Your task to perform on an android device: Add "energizer triple a" to the cart on target.com, then select checkout. Image 0: 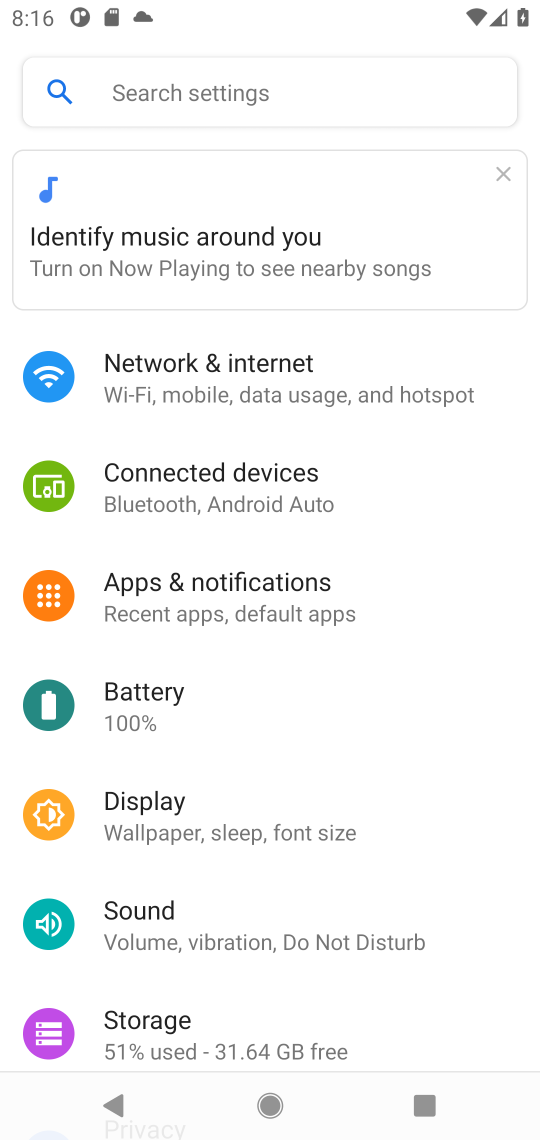
Step 0: press home button
Your task to perform on an android device: Add "energizer triple a" to the cart on target.com, then select checkout. Image 1: 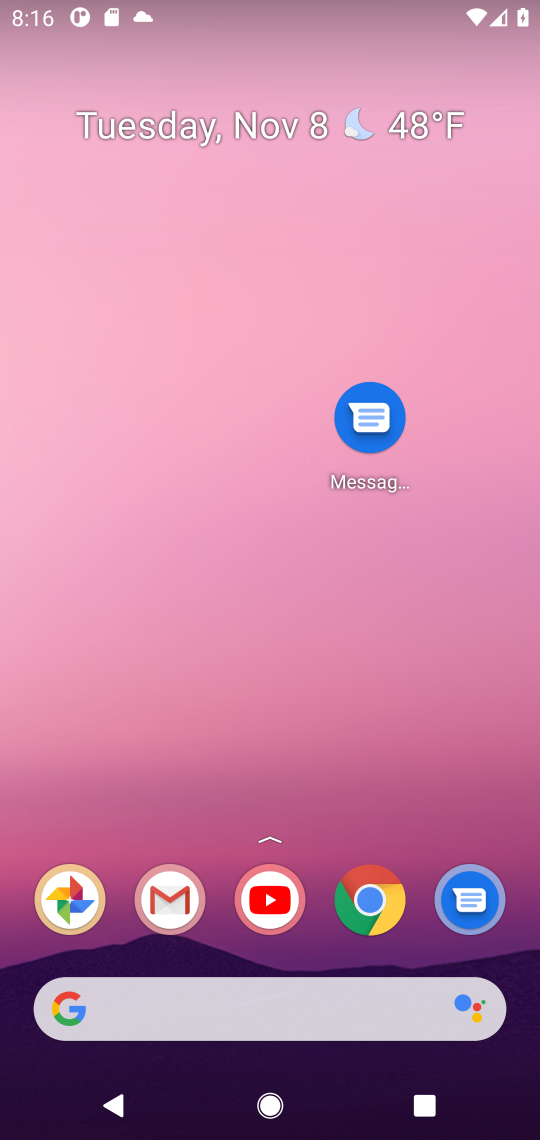
Step 1: drag from (256, 934) to (262, 388)
Your task to perform on an android device: Add "energizer triple a" to the cart on target.com, then select checkout. Image 2: 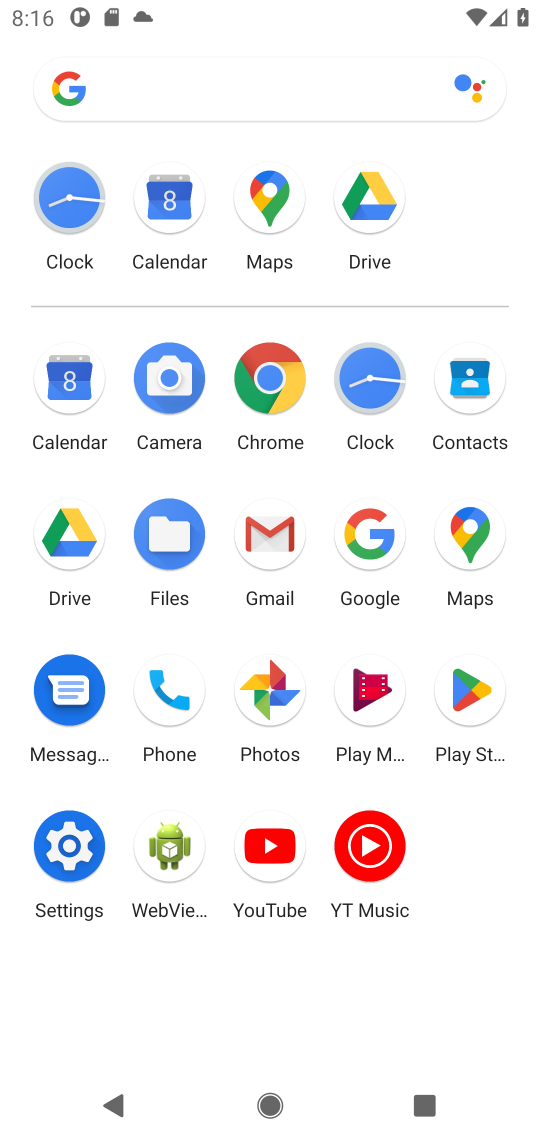
Step 2: click (363, 520)
Your task to perform on an android device: Add "energizer triple a" to the cart on target.com, then select checkout. Image 3: 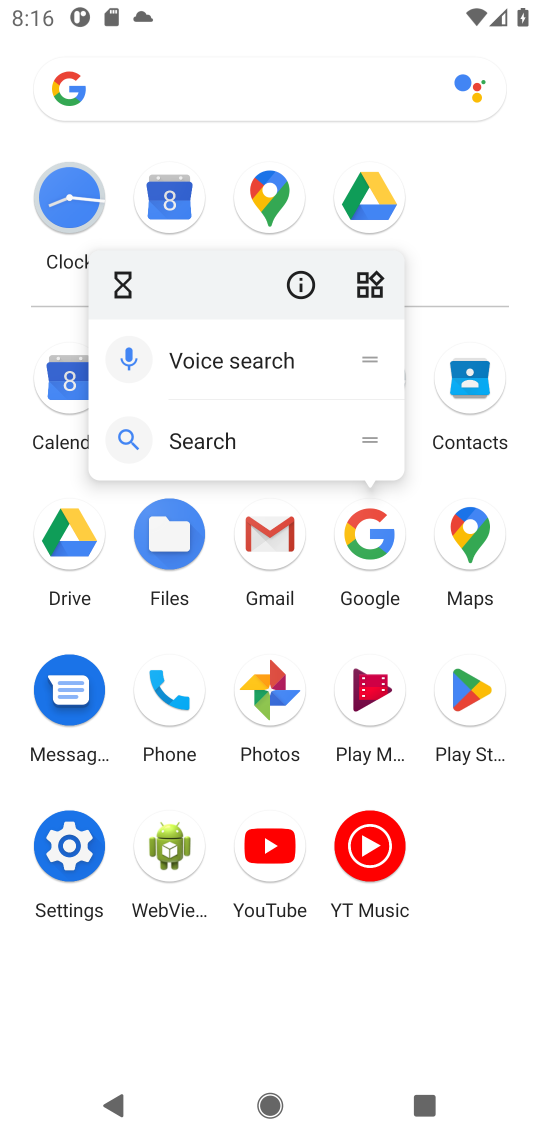
Step 3: click (363, 520)
Your task to perform on an android device: Add "energizer triple a" to the cart on target.com, then select checkout. Image 4: 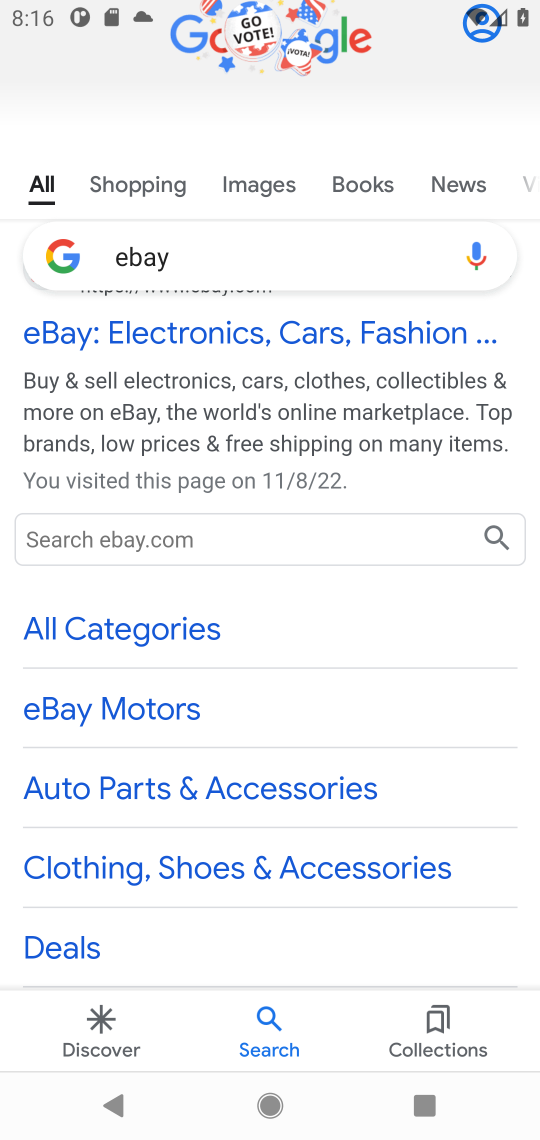
Step 4: click (305, 249)
Your task to perform on an android device: Add "energizer triple a" to the cart on target.com, then select checkout. Image 5: 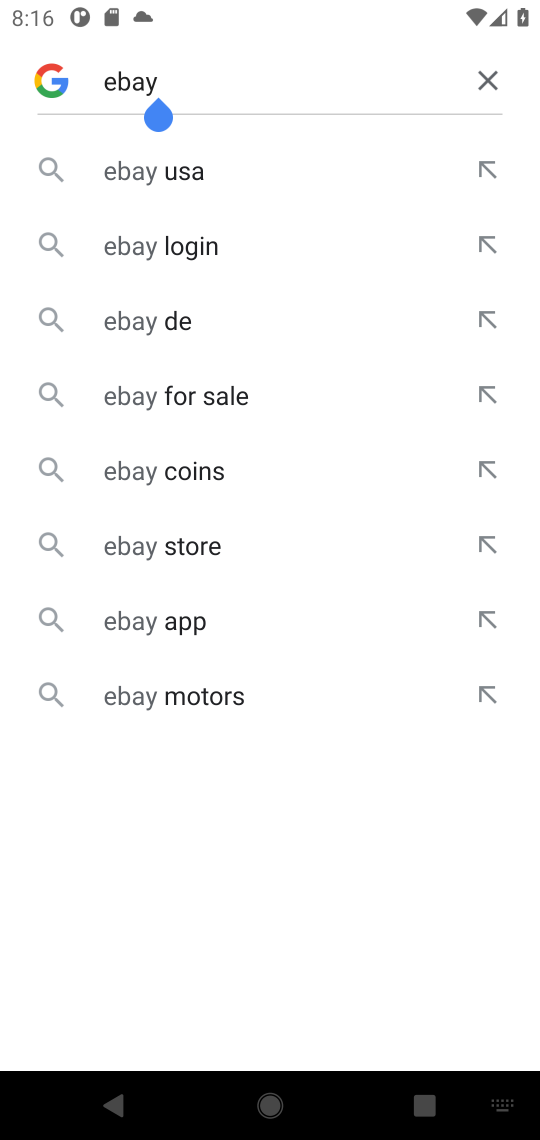
Step 5: click (485, 63)
Your task to perform on an android device: Add "energizer triple a" to the cart on target.com, then select checkout. Image 6: 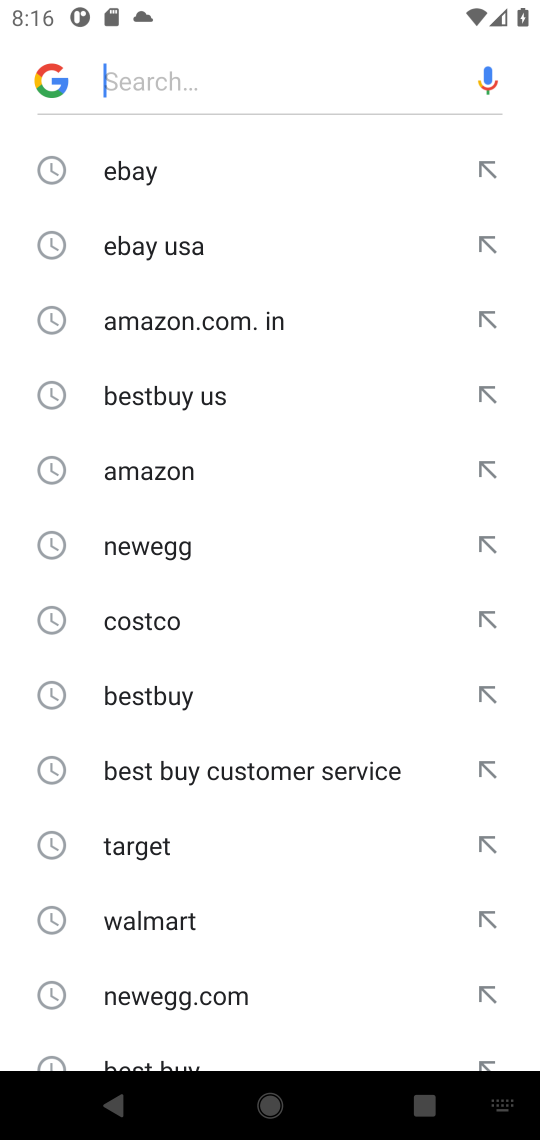
Step 6: click (249, 65)
Your task to perform on an android device: Add "energizer triple a" to the cart on target.com, then select checkout. Image 7: 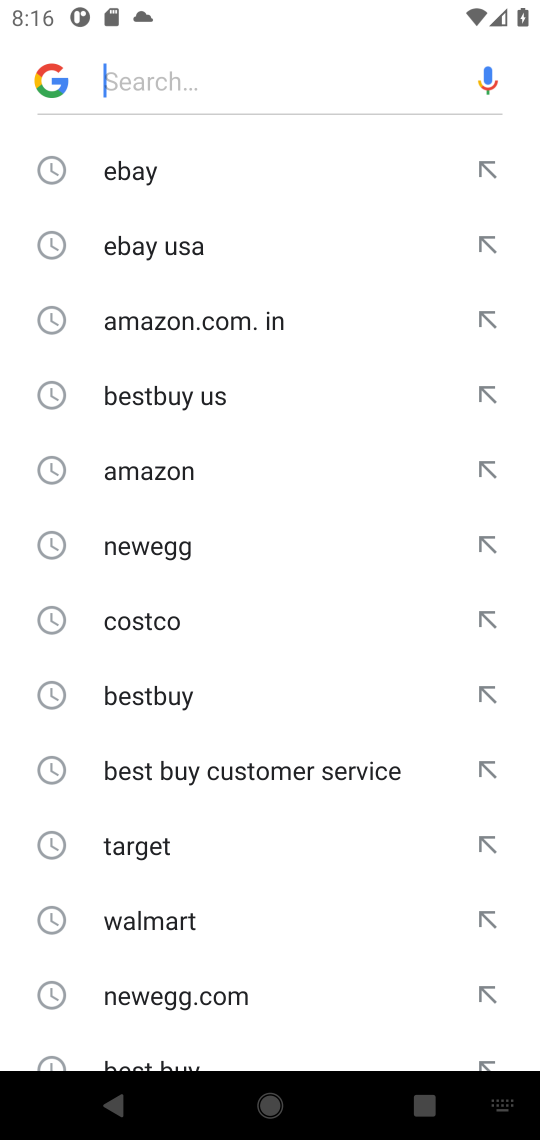
Step 7: type "target "
Your task to perform on an android device: Add "energizer triple a" to the cart on target.com, then select checkout. Image 8: 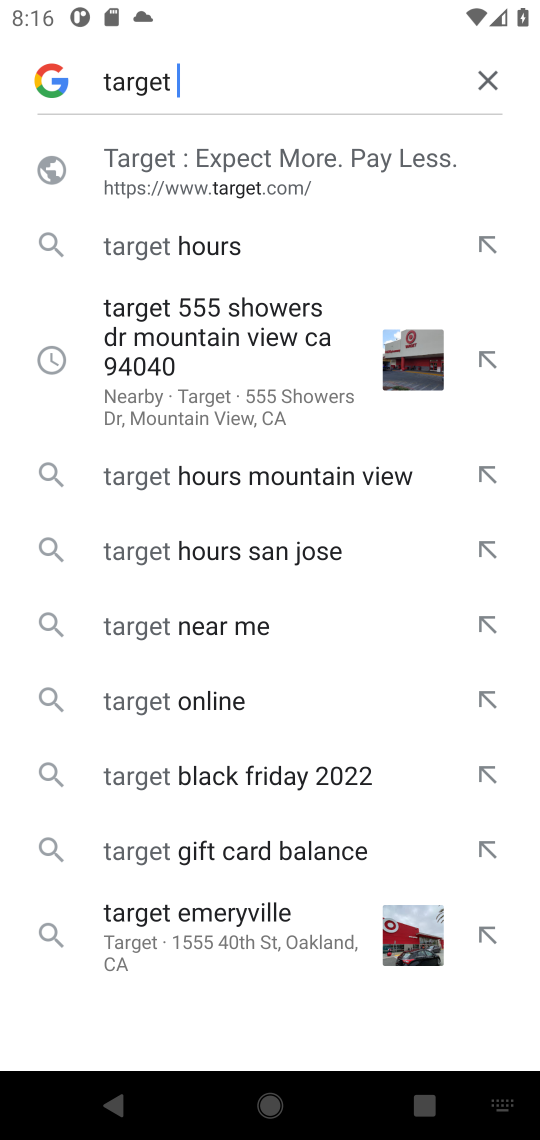
Step 8: click (170, 165)
Your task to perform on an android device: Add "energizer triple a" to the cart on target.com, then select checkout. Image 9: 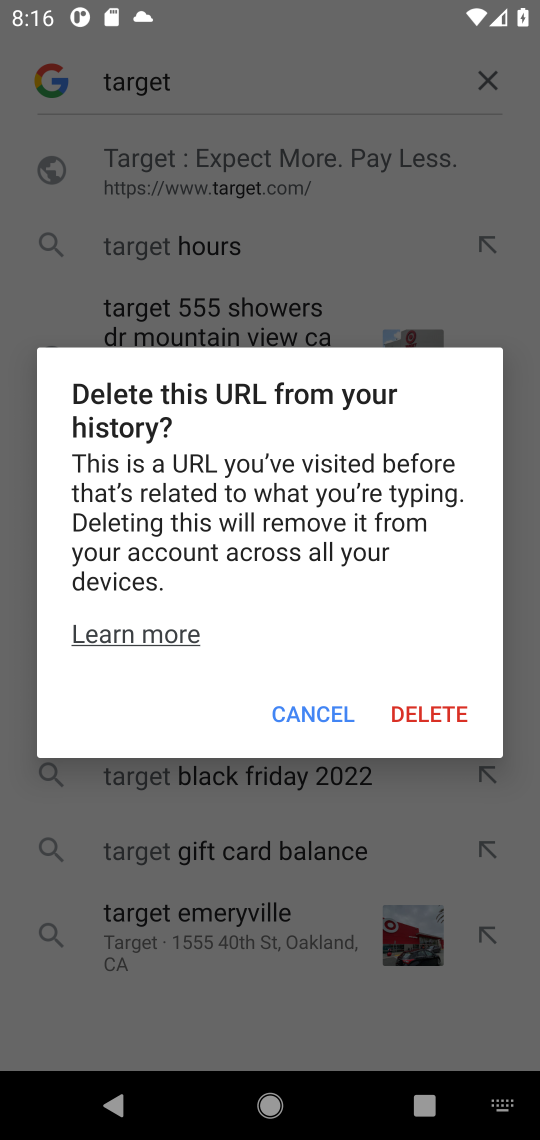
Step 9: click (291, 701)
Your task to perform on an android device: Add "energizer triple a" to the cart on target.com, then select checkout. Image 10: 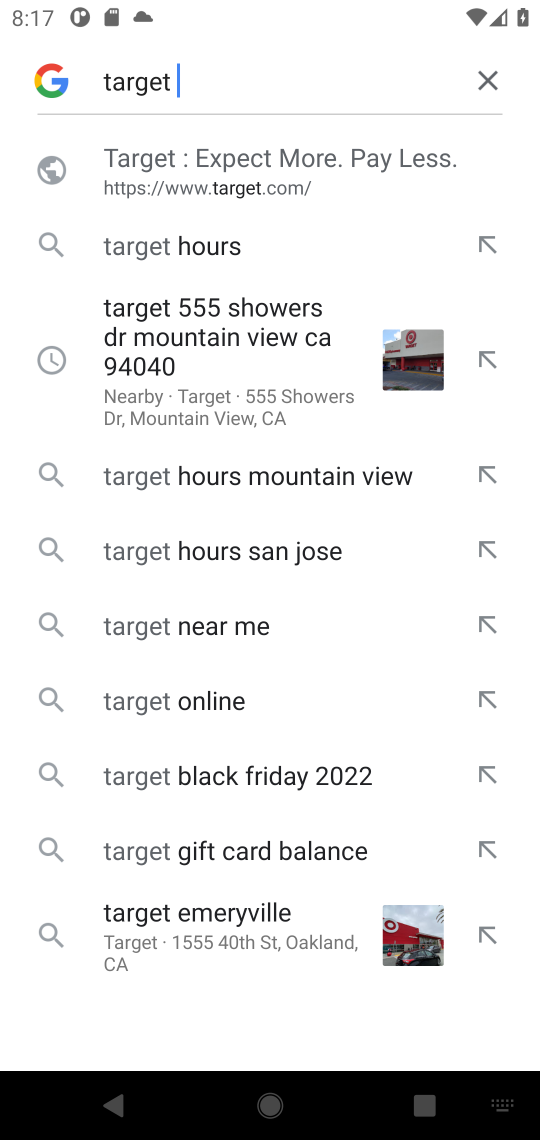
Step 10: click (435, 157)
Your task to perform on an android device: Add "energizer triple a" to the cart on target.com, then select checkout. Image 11: 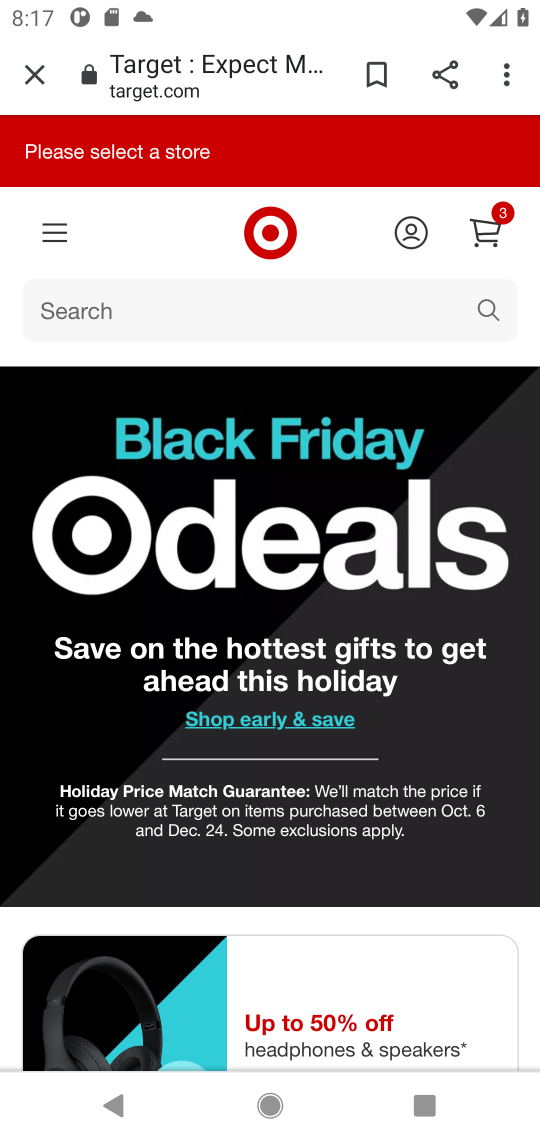
Step 11: click (247, 306)
Your task to perform on an android device: Add "energizer triple a" to the cart on target.com, then select checkout. Image 12: 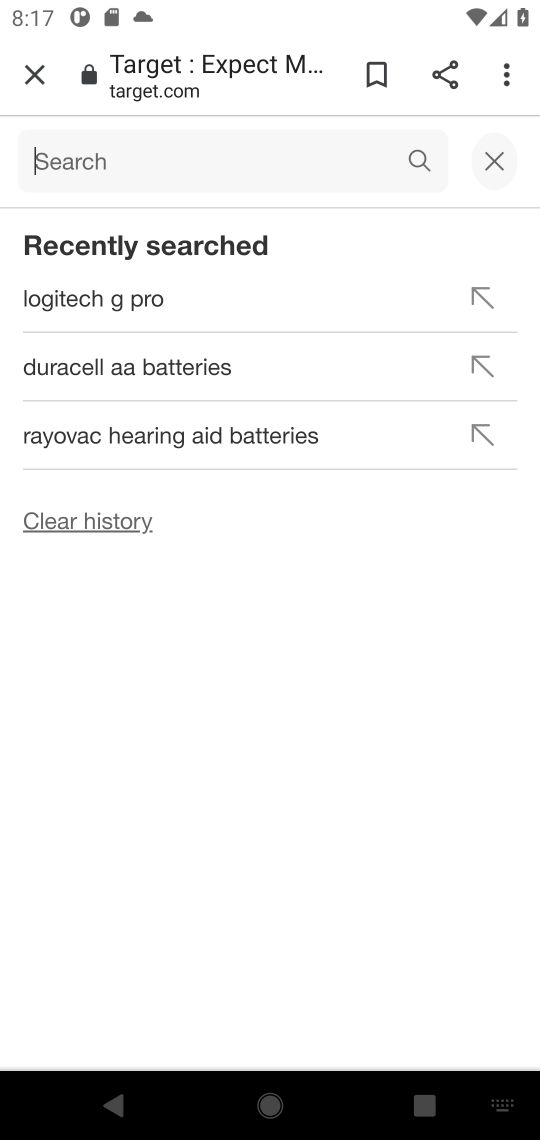
Step 12: click (196, 159)
Your task to perform on an android device: Add "energizer triple a" to the cart on target.com, then select checkout. Image 13: 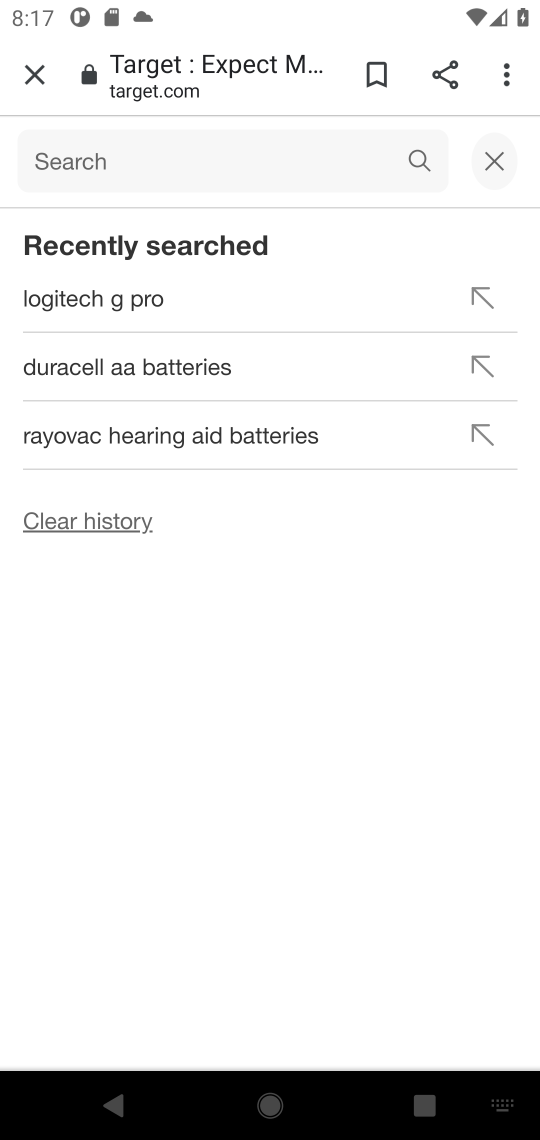
Step 13: type "energizer triple  "
Your task to perform on an android device: Add "energizer triple a" to the cart on target.com, then select checkout. Image 14: 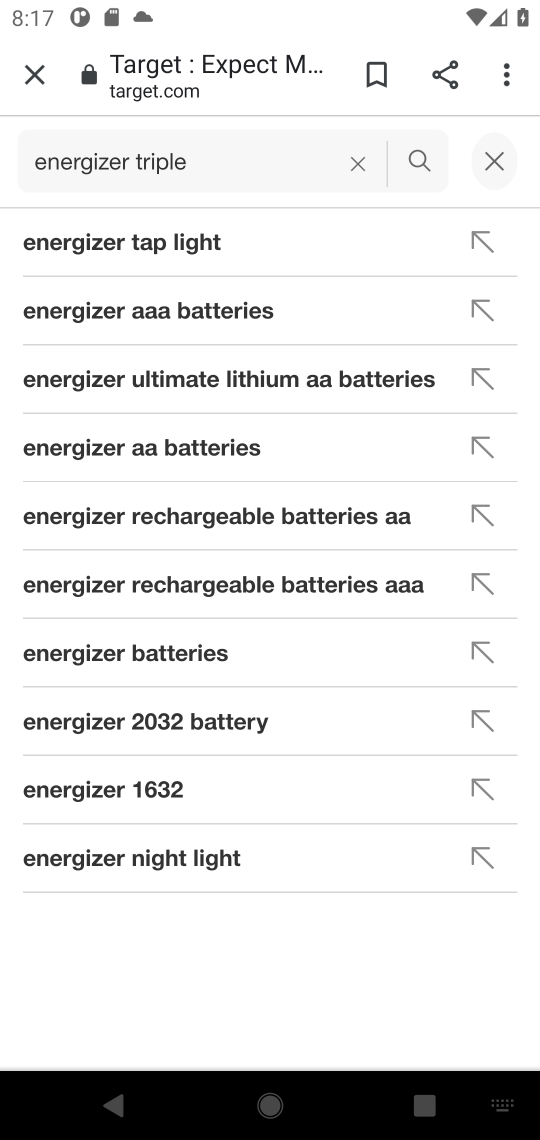
Step 14: click (183, 310)
Your task to perform on an android device: Add "energizer triple a" to the cart on target.com, then select checkout. Image 15: 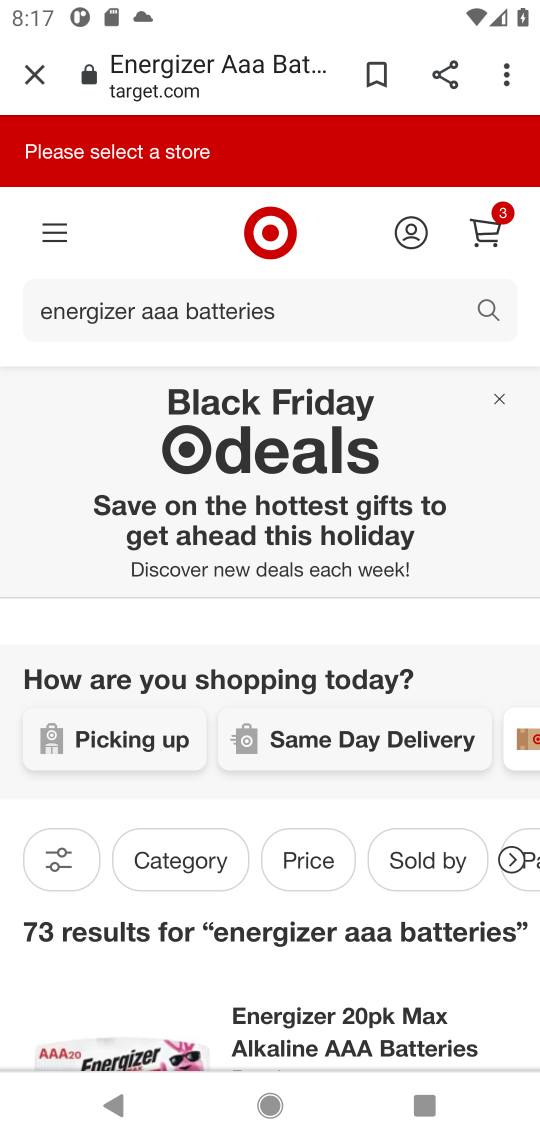
Step 15: drag from (314, 894) to (299, 248)
Your task to perform on an android device: Add "energizer triple a" to the cart on target.com, then select checkout. Image 16: 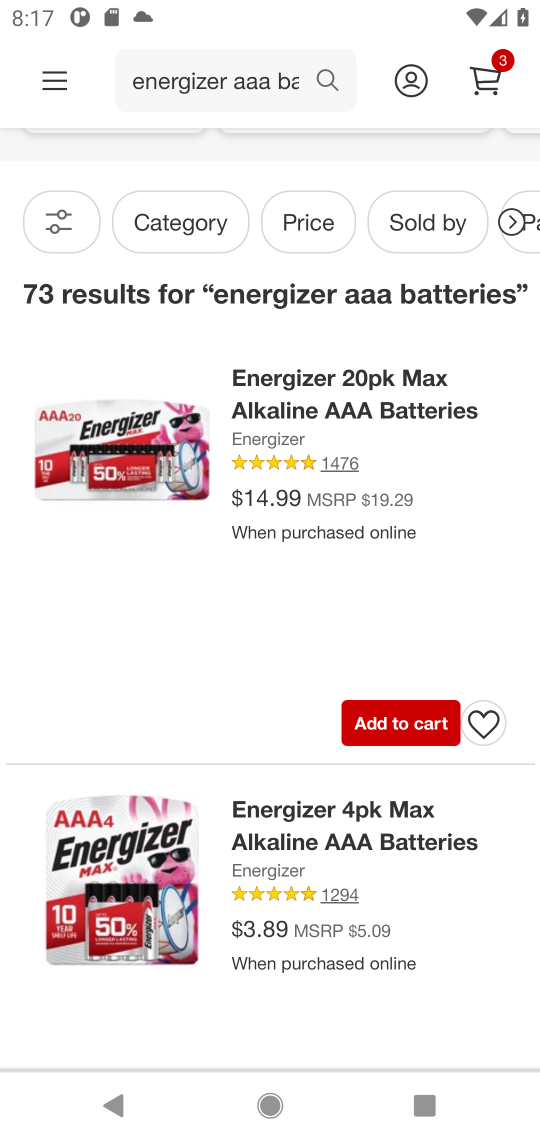
Step 16: click (374, 706)
Your task to perform on an android device: Add "energizer triple a" to the cart on target.com, then select checkout. Image 17: 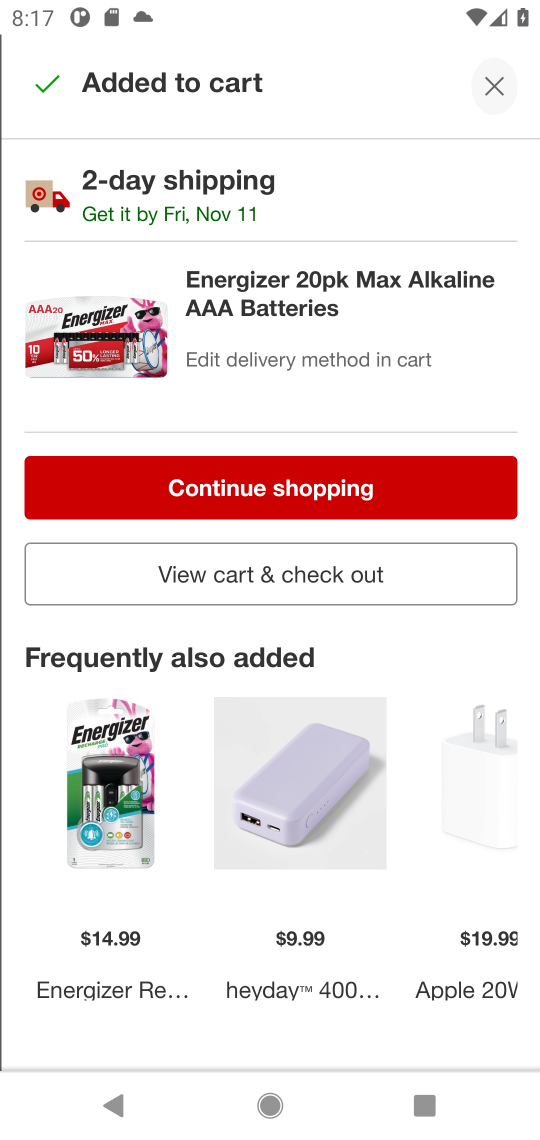
Step 17: task complete